Your task to perform on an android device: Is it going to rain this weekend? Image 0: 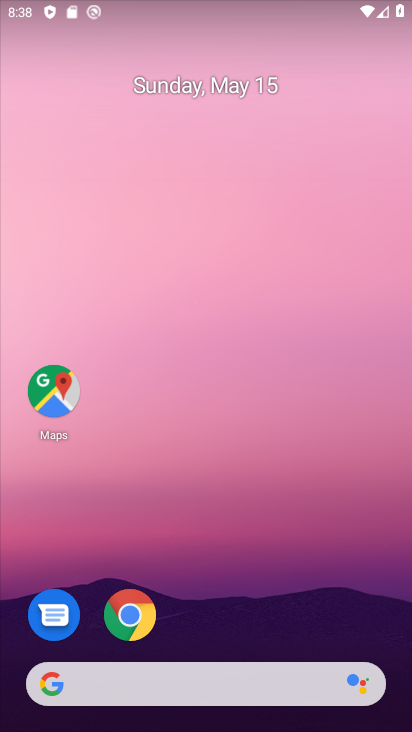
Step 0: drag from (220, 583) to (211, 25)
Your task to perform on an android device: Is it going to rain this weekend? Image 1: 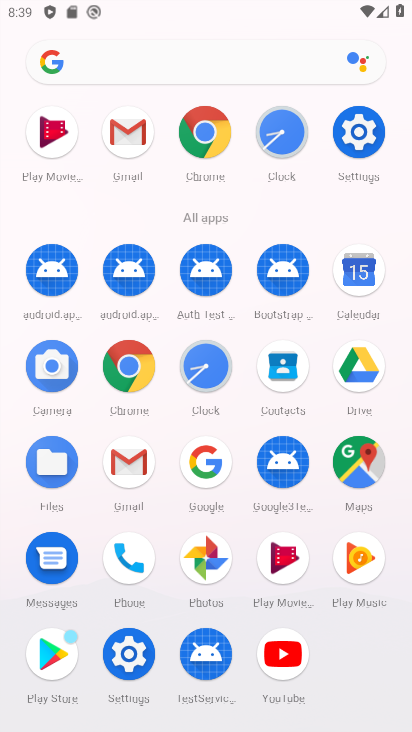
Step 1: drag from (6, 586) to (6, 299)
Your task to perform on an android device: Is it going to rain this weekend? Image 2: 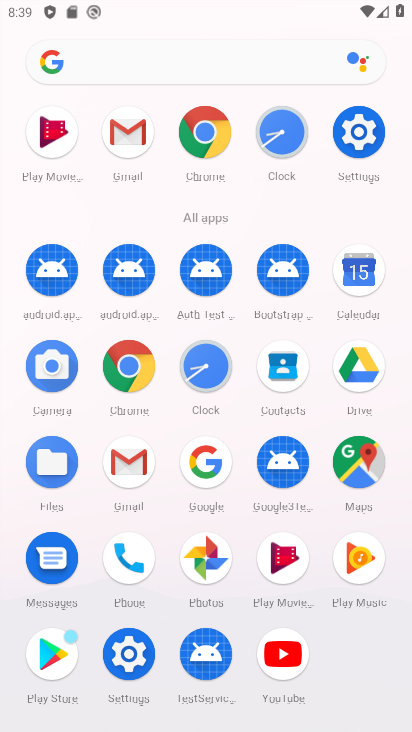
Step 2: click (206, 128)
Your task to perform on an android device: Is it going to rain this weekend? Image 3: 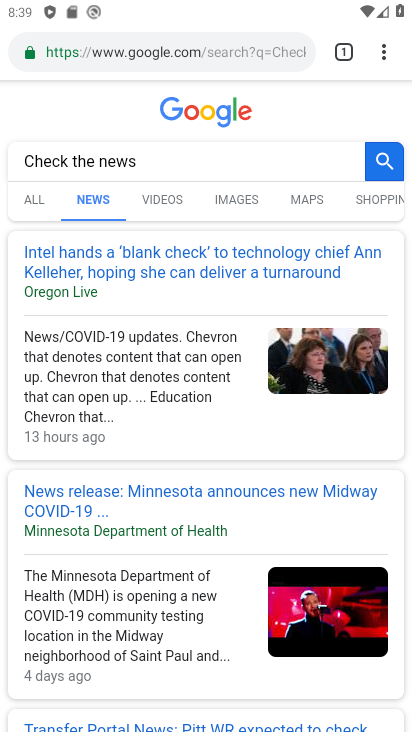
Step 3: click (172, 163)
Your task to perform on an android device: Is it going to rain this weekend? Image 4: 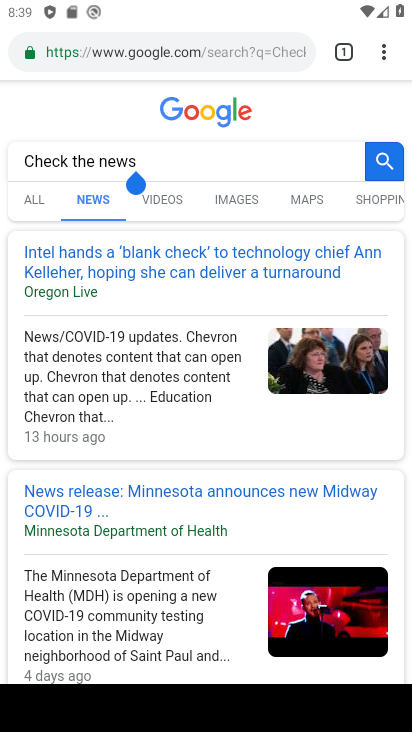
Step 4: click (145, 53)
Your task to perform on an android device: Is it going to rain this weekend? Image 5: 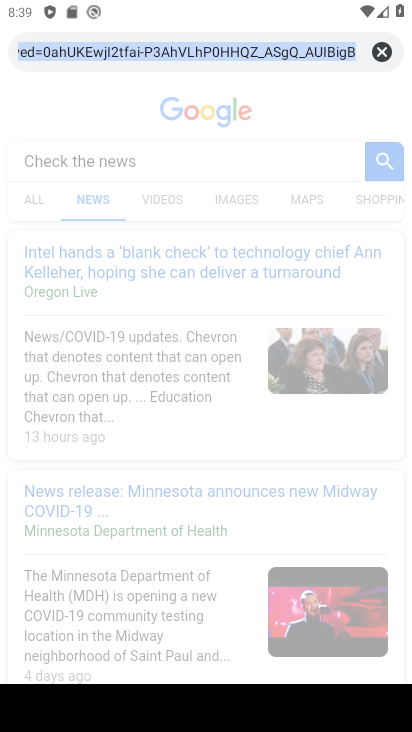
Step 5: click (378, 51)
Your task to perform on an android device: Is it going to rain this weekend? Image 6: 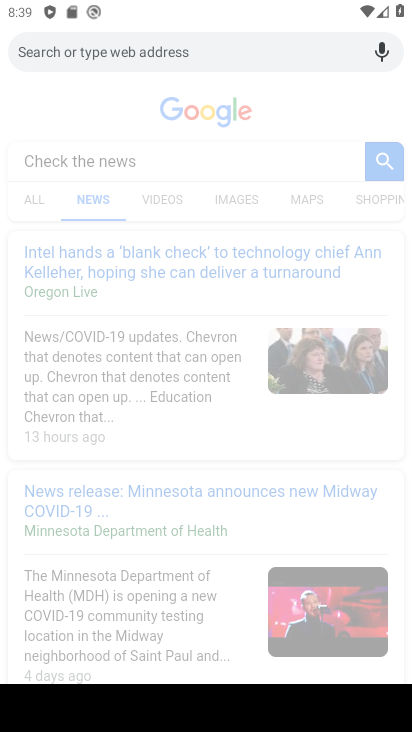
Step 6: type "Is it going to rain this weekend?"
Your task to perform on an android device: Is it going to rain this weekend? Image 7: 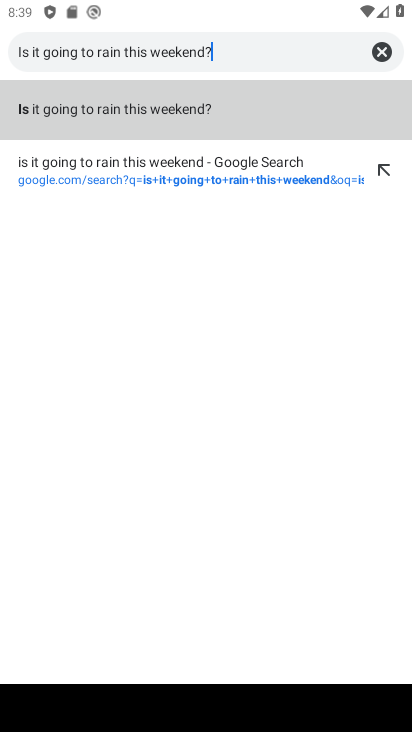
Step 7: type ""
Your task to perform on an android device: Is it going to rain this weekend? Image 8: 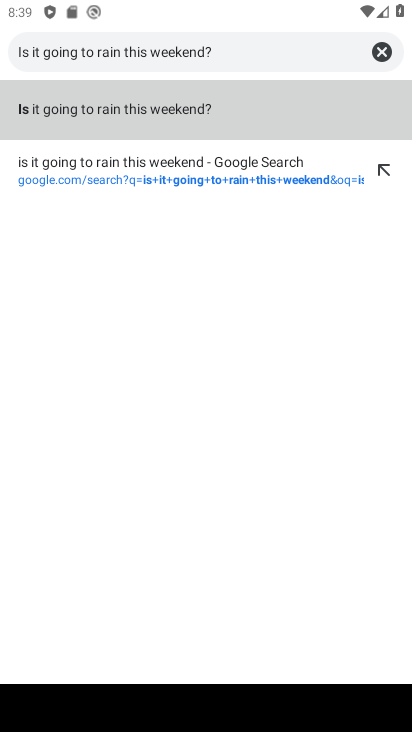
Step 8: click (214, 126)
Your task to perform on an android device: Is it going to rain this weekend? Image 9: 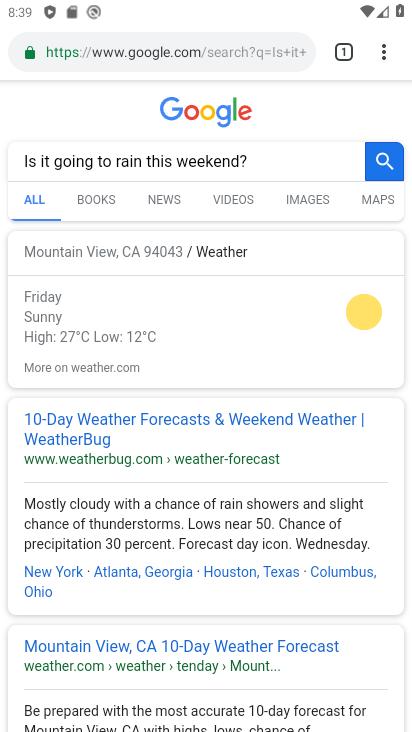
Step 9: task complete